Your task to perform on an android device: What time is it in Paris? Image 0: 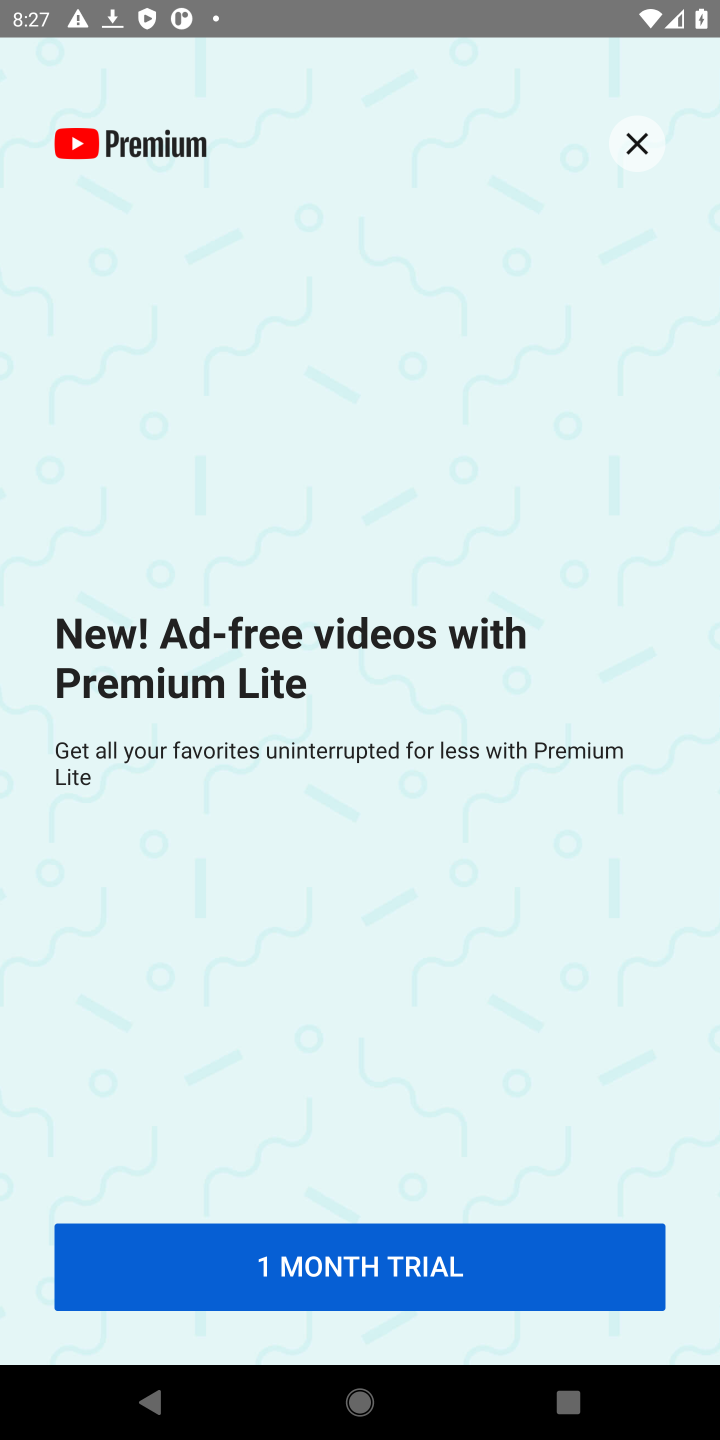
Step 0: press home button
Your task to perform on an android device: What time is it in Paris? Image 1: 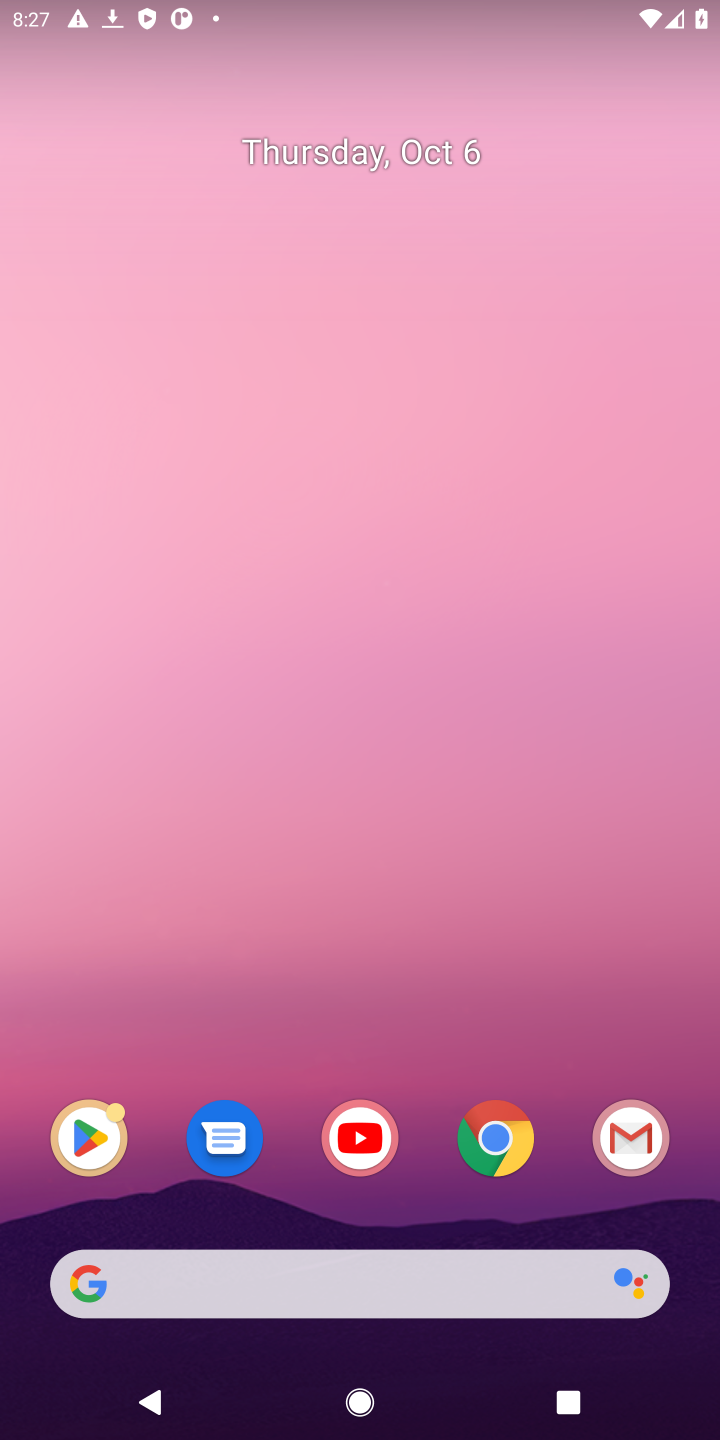
Step 1: click (497, 1126)
Your task to perform on an android device: What time is it in Paris? Image 2: 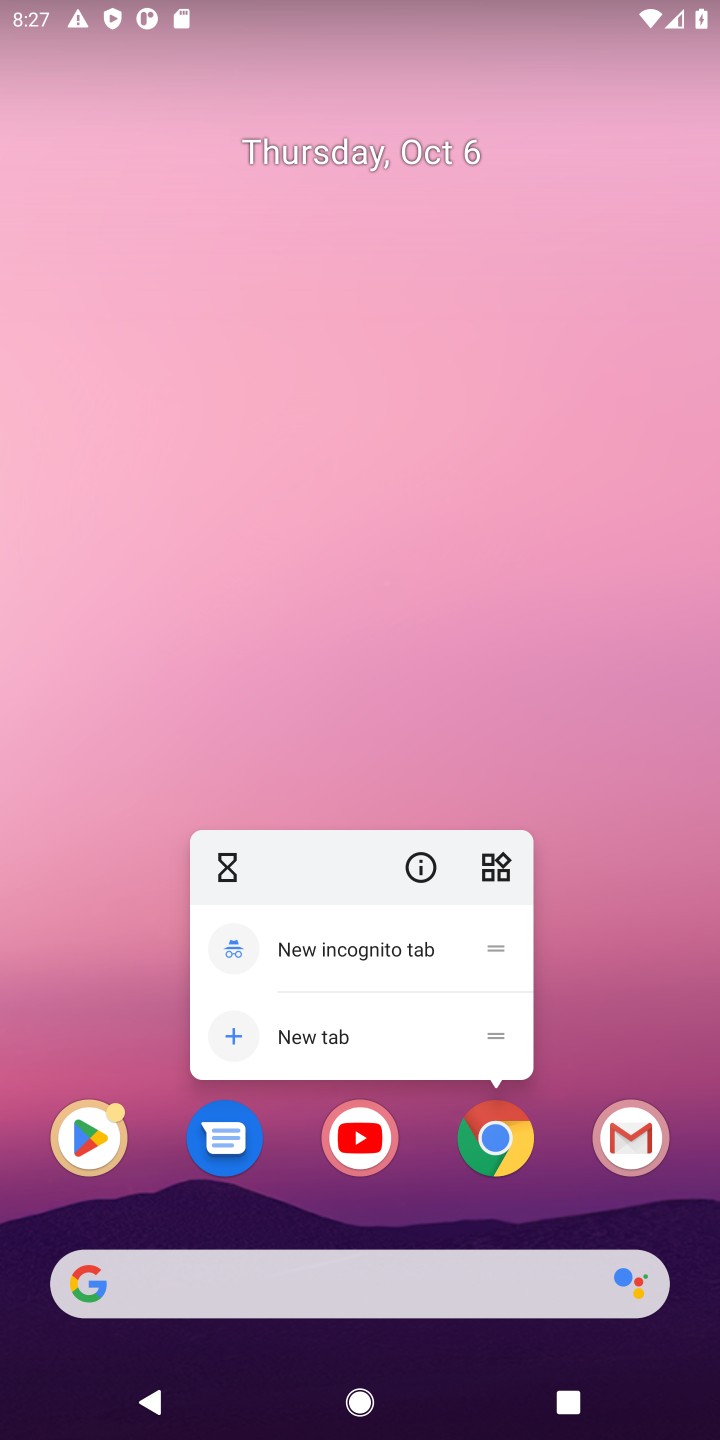
Step 2: click (485, 1142)
Your task to perform on an android device: What time is it in Paris? Image 3: 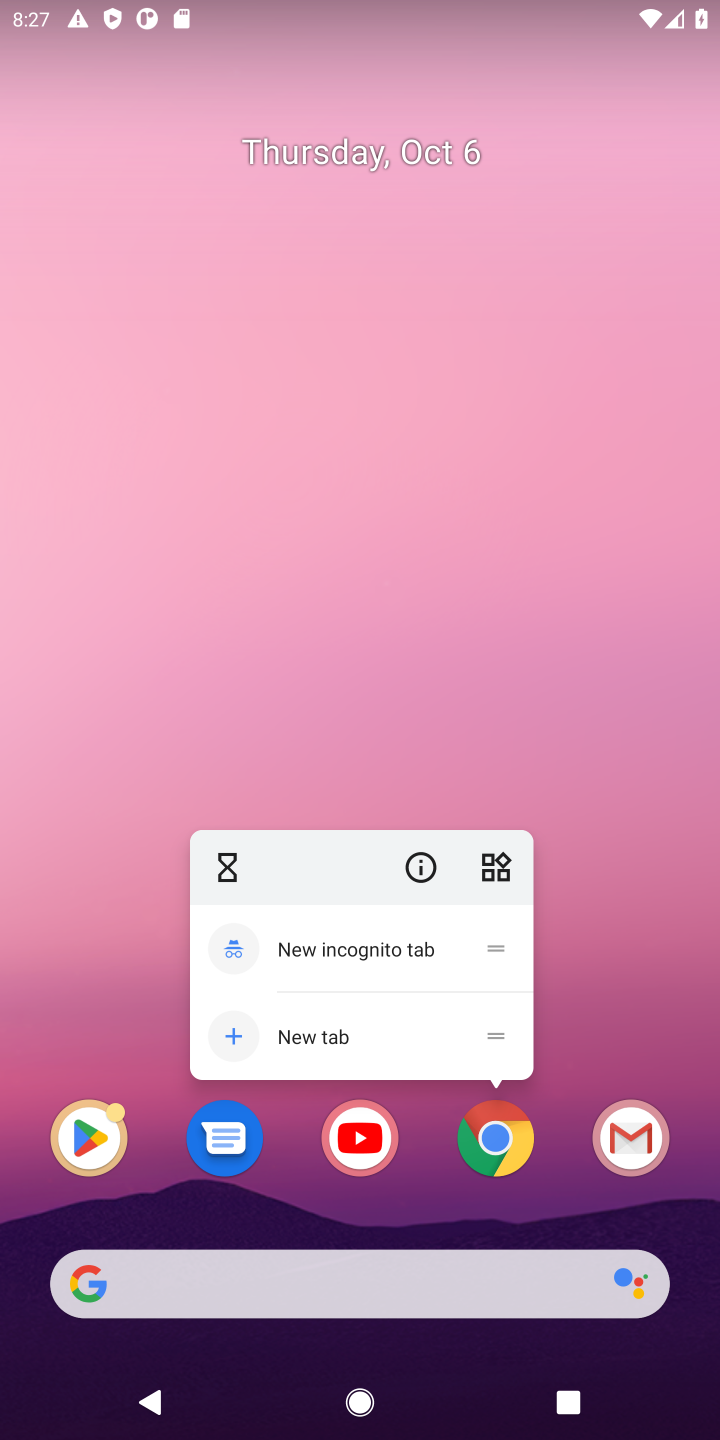
Step 3: click (489, 1141)
Your task to perform on an android device: What time is it in Paris? Image 4: 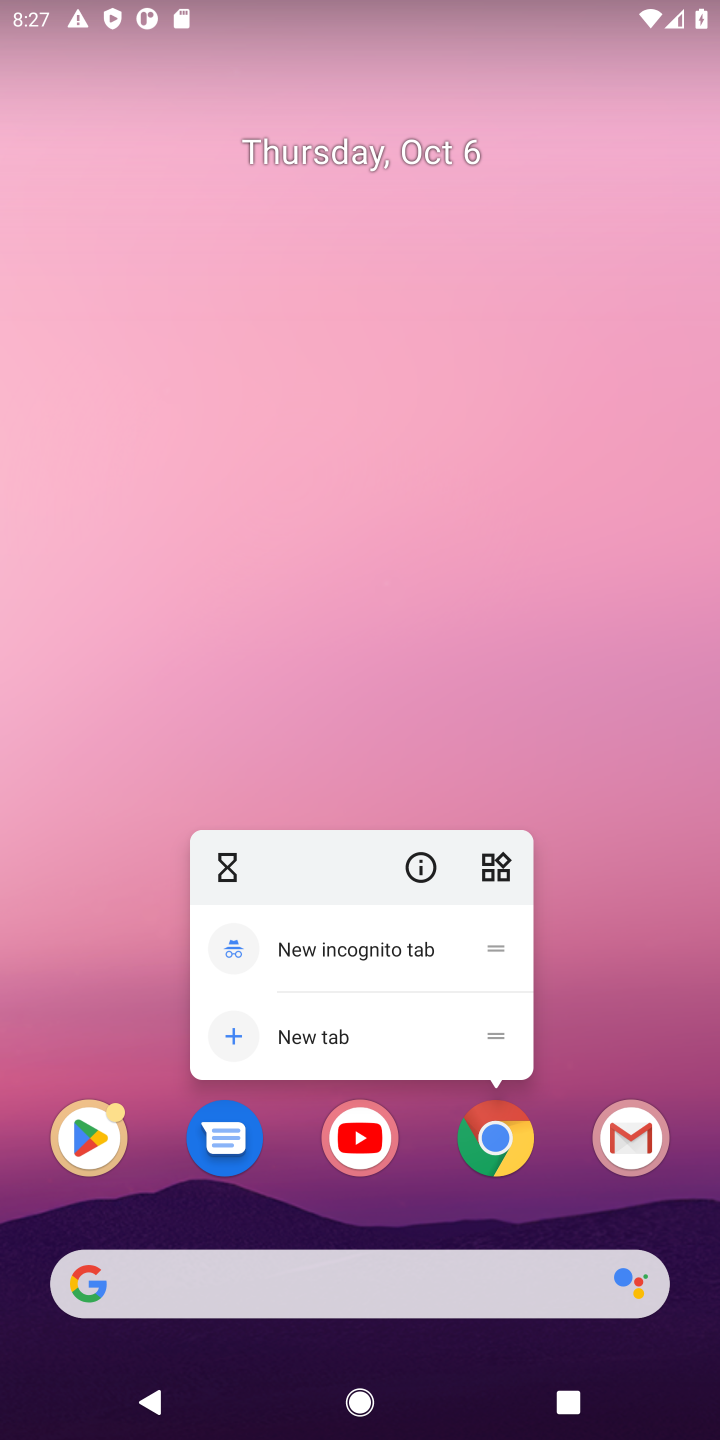
Step 4: click (489, 1142)
Your task to perform on an android device: What time is it in Paris? Image 5: 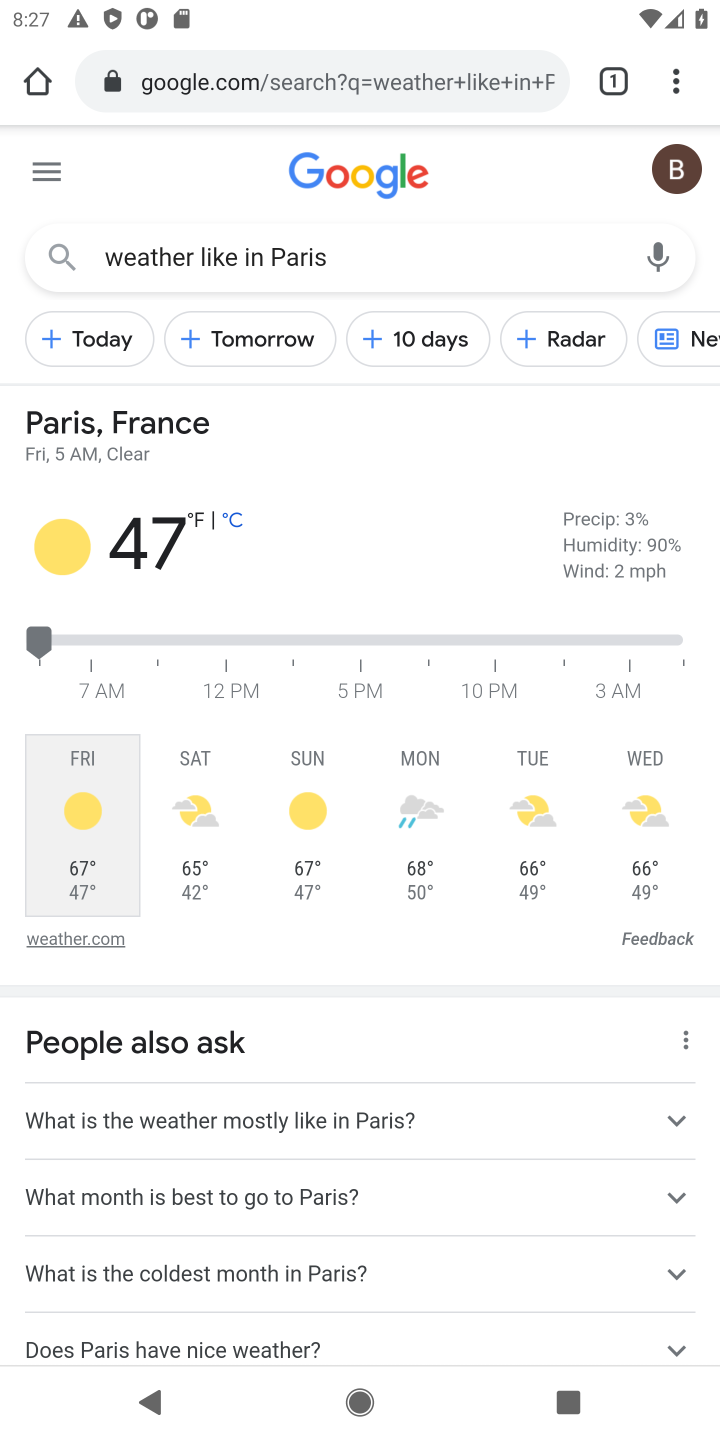
Step 5: click (464, 82)
Your task to perform on an android device: What time is it in Paris? Image 6: 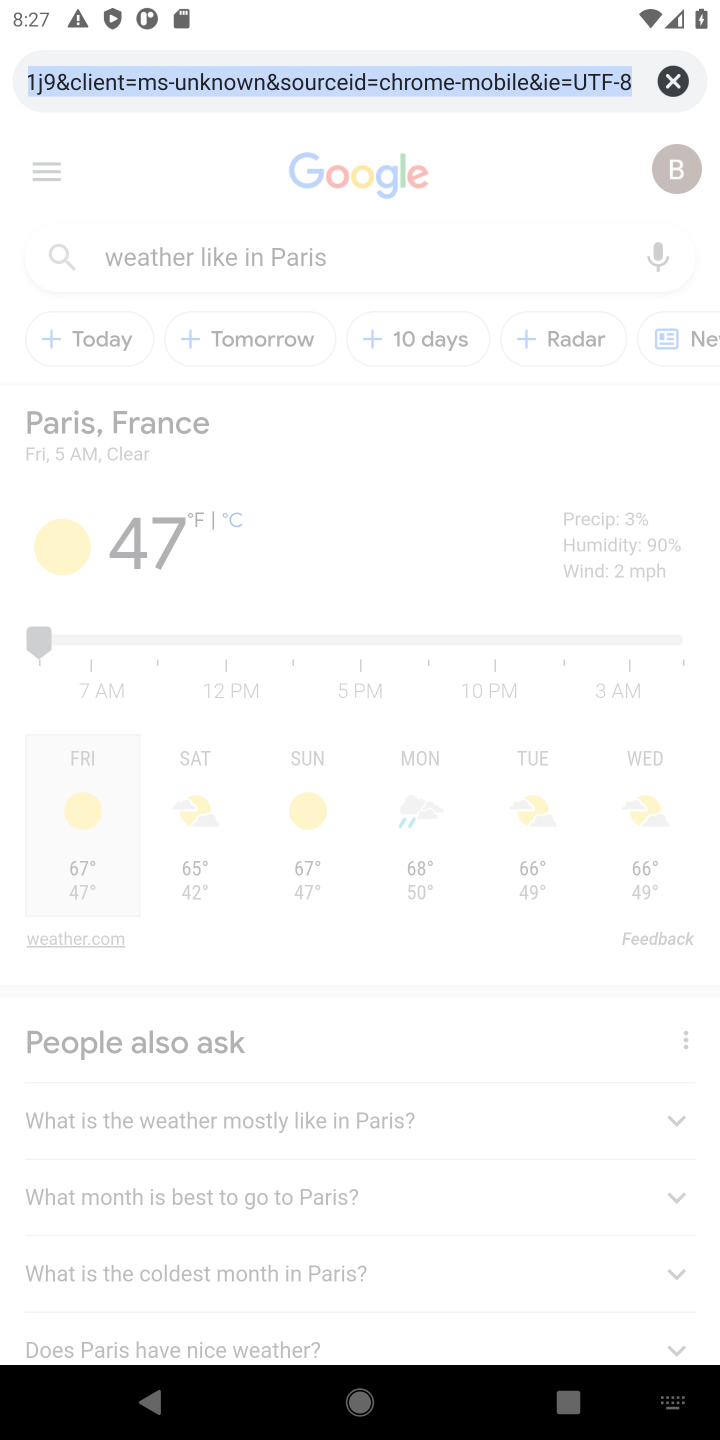
Step 6: click (675, 76)
Your task to perform on an android device: What time is it in Paris? Image 7: 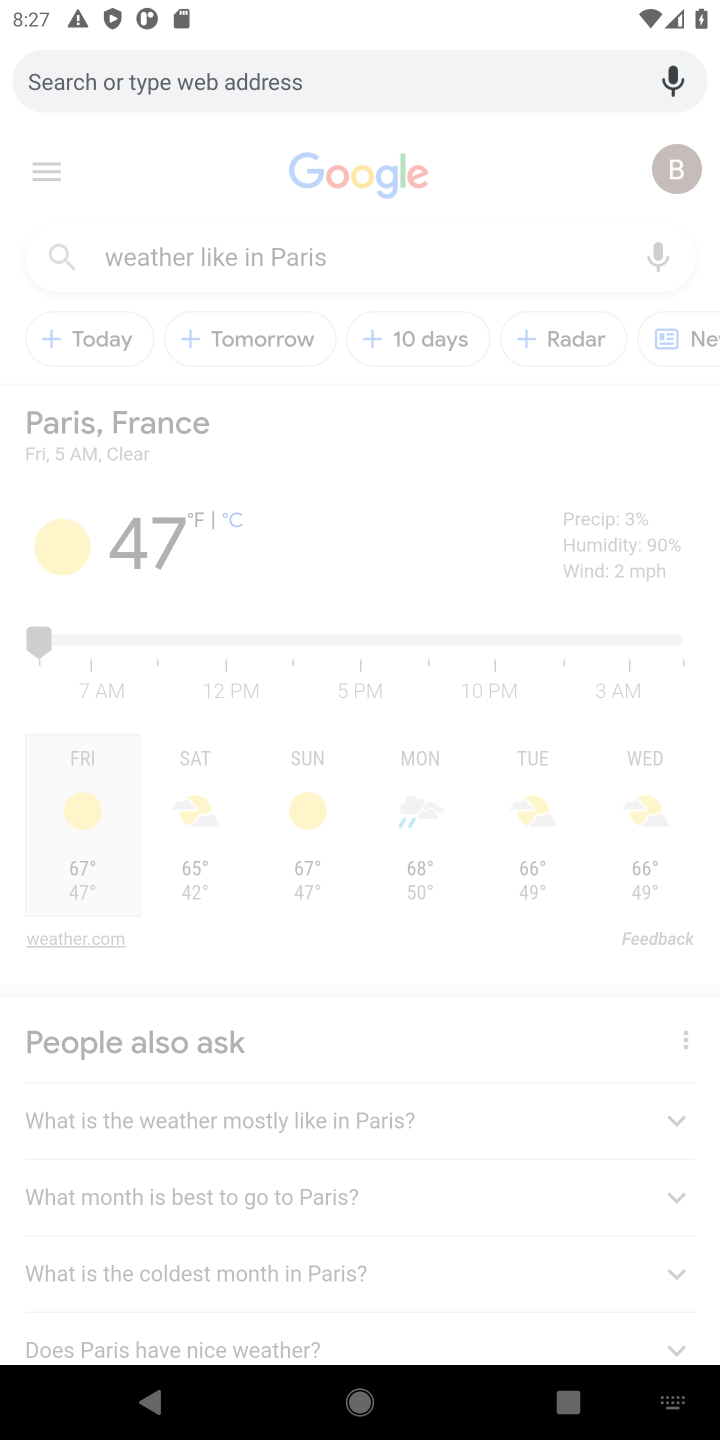
Step 7: type "What time is it in Paris"
Your task to perform on an android device: What time is it in Paris? Image 8: 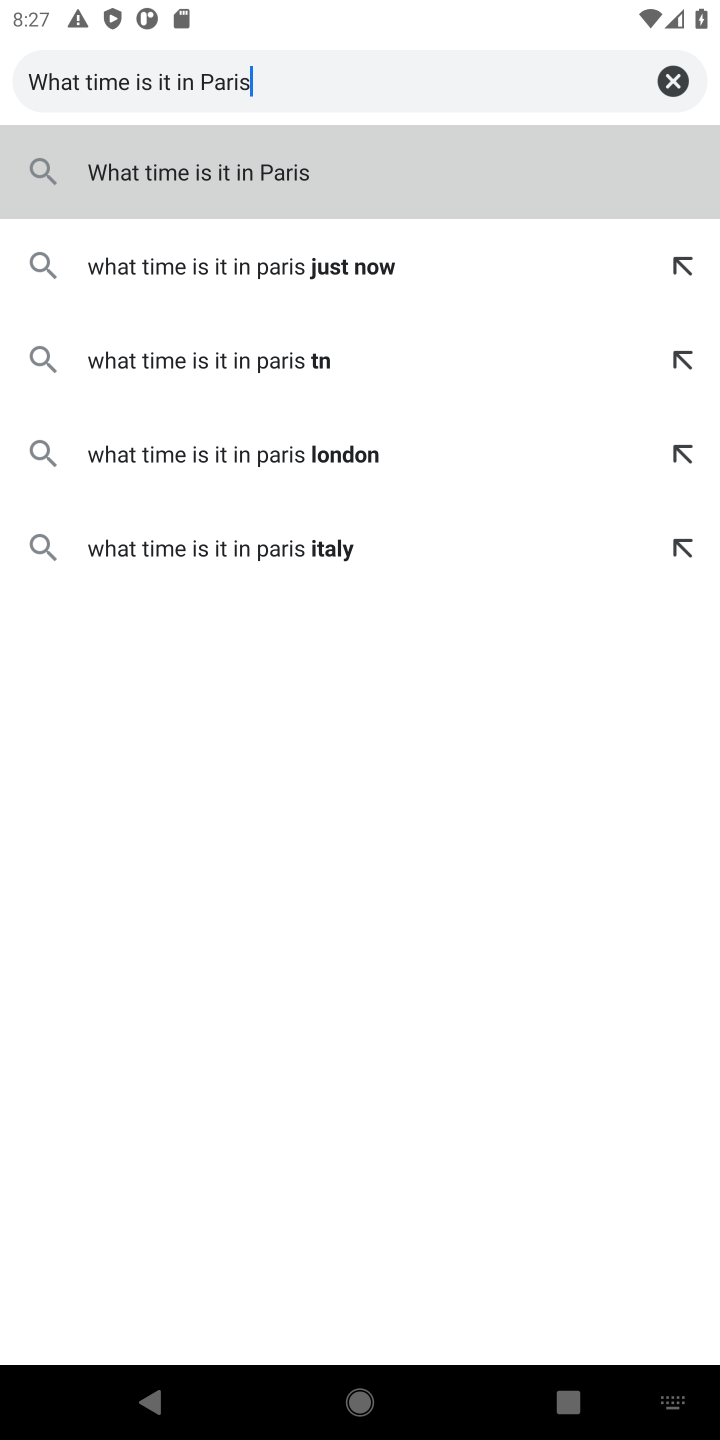
Step 8: click (217, 172)
Your task to perform on an android device: What time is it in Paris? Image 9: 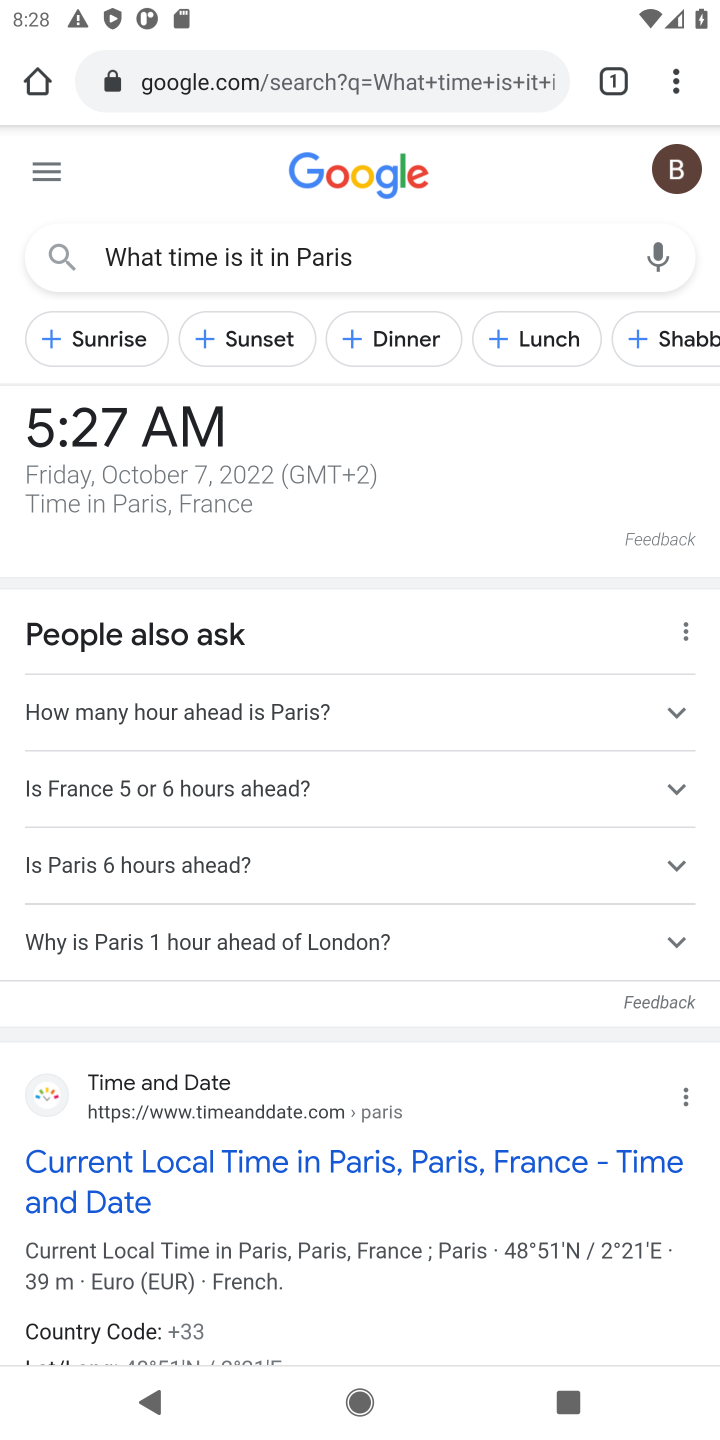
Step 9: task complete